Your task to perform on an android device: Do I have any events this weekend? Image 0: 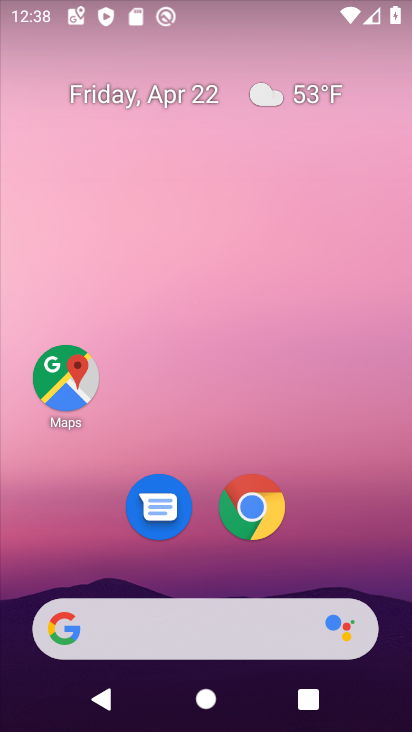
Step 0: drag from (318, 553) to (262, 211)
Your task to perform on an android device: Do I have any events this weekend? Image 1: 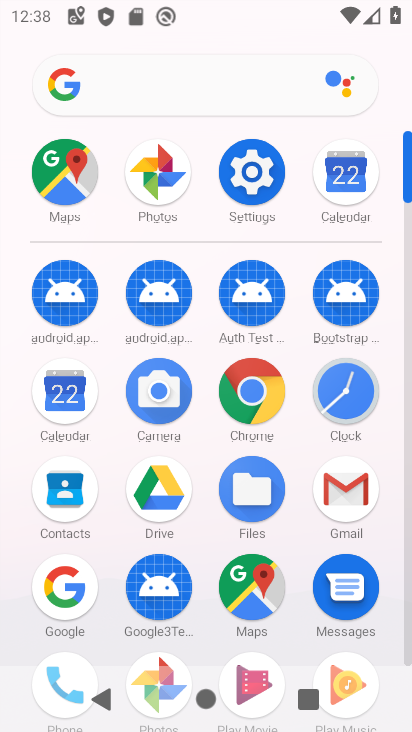
Step 1: click (343, 175)
Your task to perform on an android device: Do I have any events this weekend? Image 2: 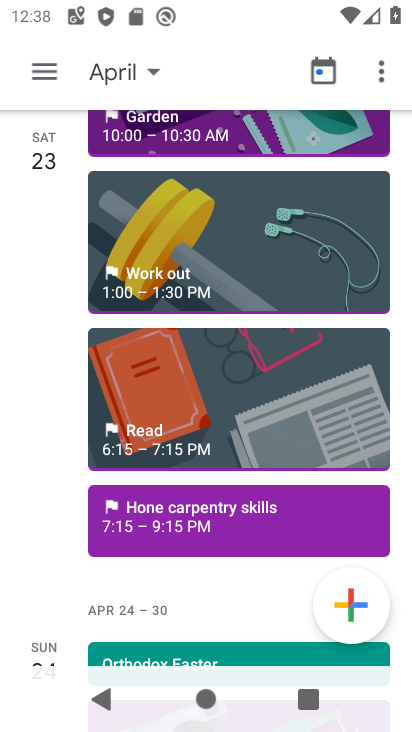
Step 2: task complete